Your task to perform on an android device: Clear the cart on bestbuy. Search for razer deathadder on bestbuy, select the first entry, and add it to the cart. Image 0: 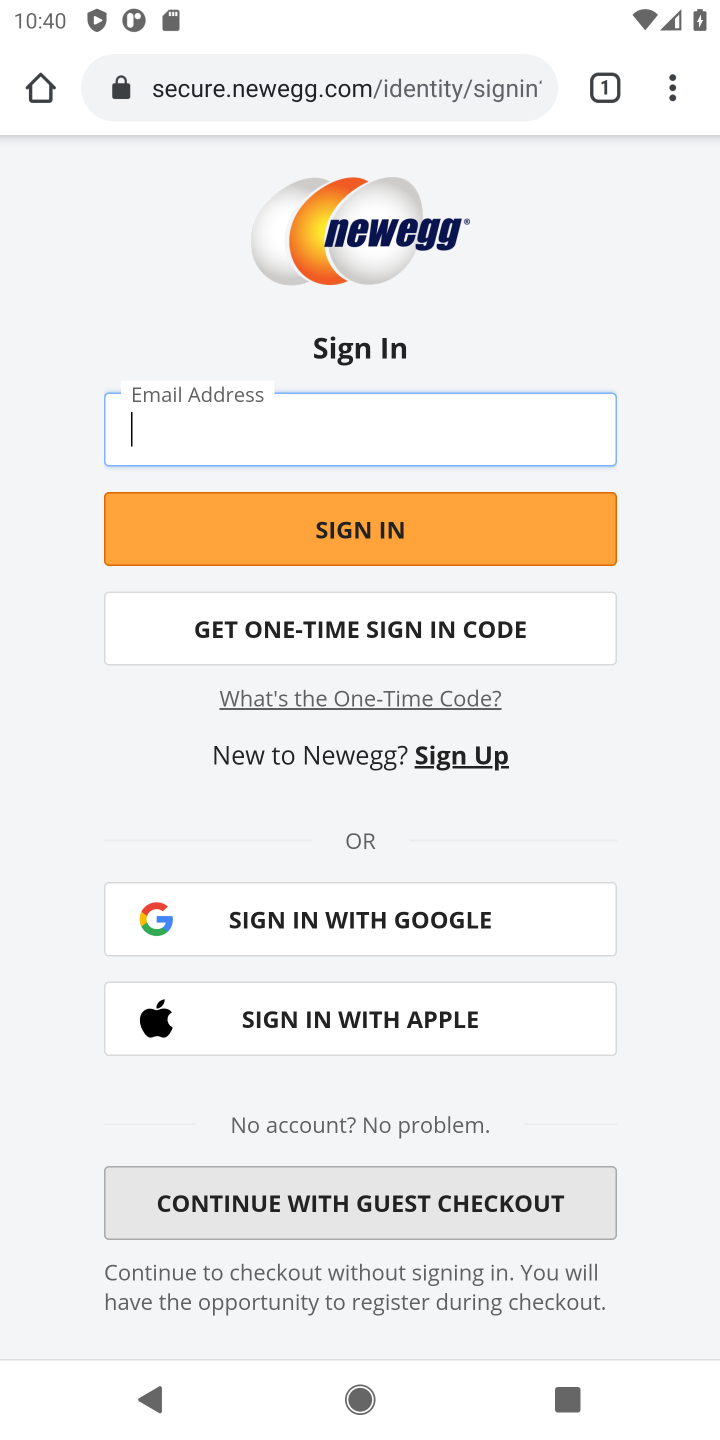
Step 0: task complete